Your task to perform on an android device: change keyboard looks Image 0: 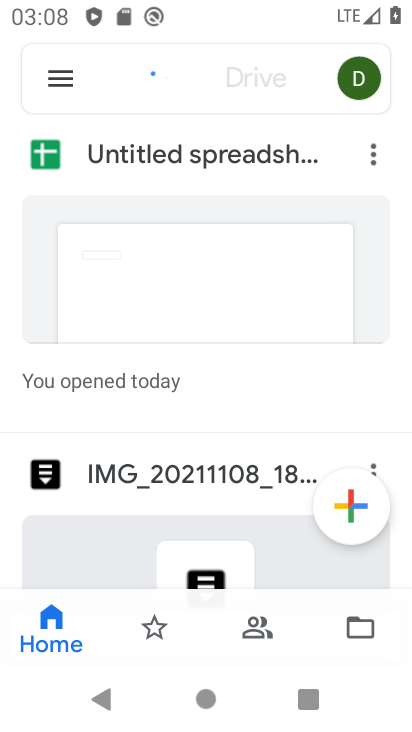
Step 0: press home button
Your task to perform on an android device: change keyboard looks Image 1: 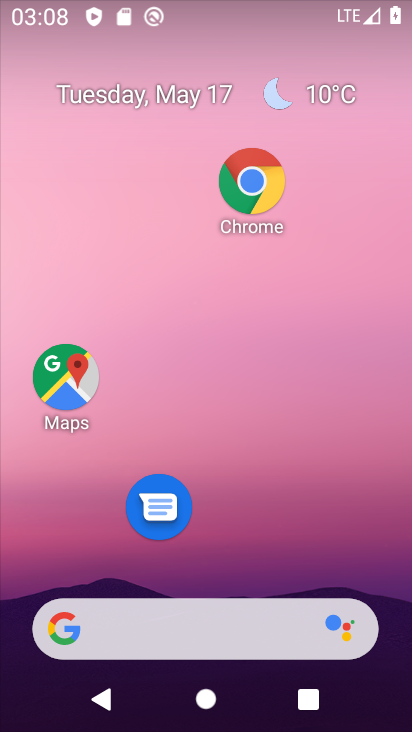
Step 1: drag from (232, 537) to (191, 41)
Your task to perform on an android device: change keyboard looks Image 2: 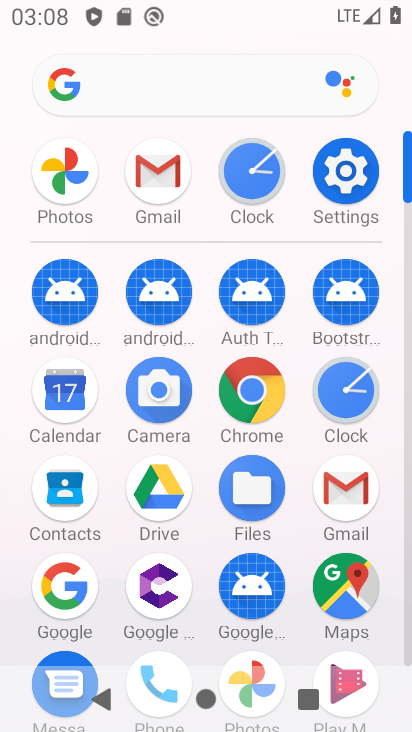
Step 2: click (364, 166)
Your task to perform on an android device: change keyboard looks Image 3: 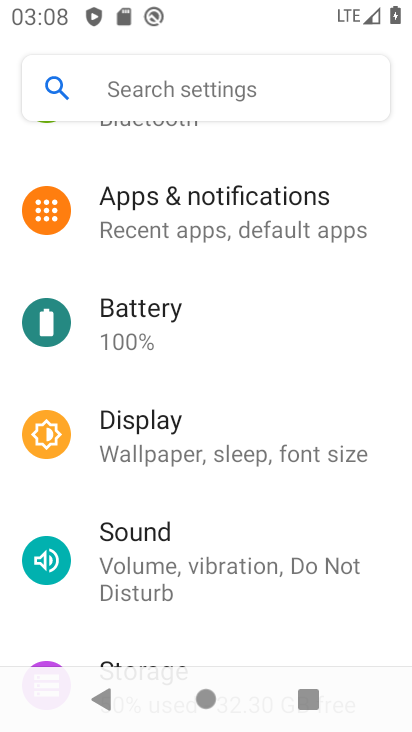
Step 3: drag from (72, 636) to (114, 288)
Your task to perform on an android device: change keyboard looks Image 4: 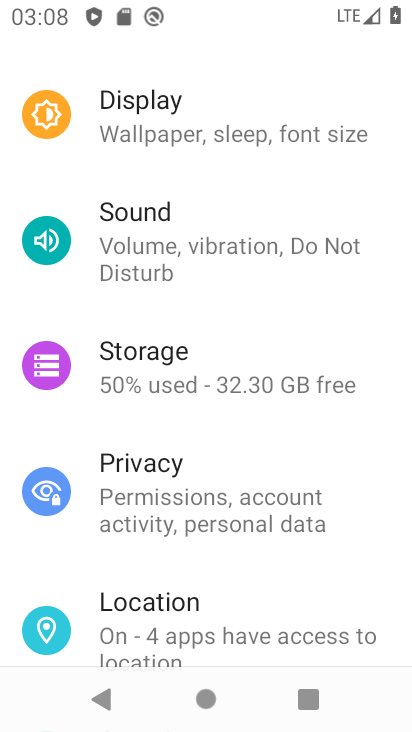
Step 4: drag from (126, 565) to (216, 137)
Your task to perform on an android device: change keyboard looks Image 5: 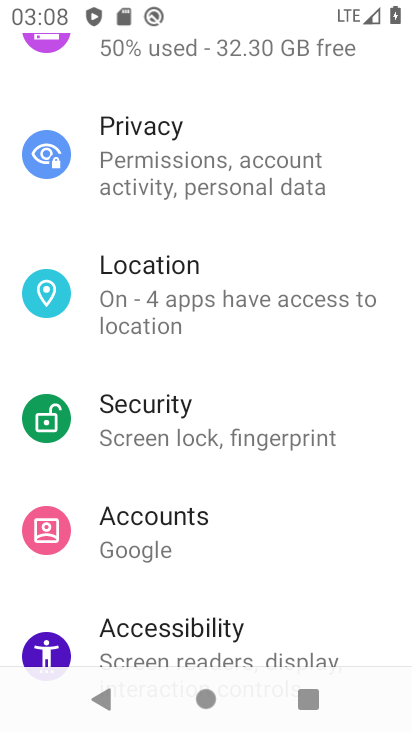
Step 5: drag from (113, 575) to (196, 154)
Your task to perform on an android device: change keyboard looks Image 6: 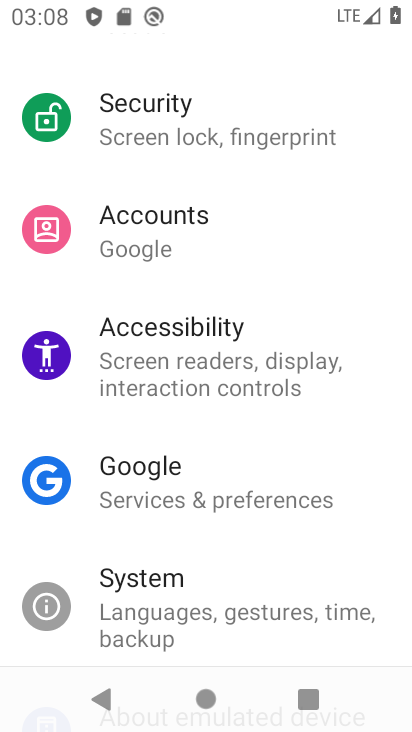
Step 6: click (207, 631)
Your task to perform on an android device: change keyboard looks Image 7: 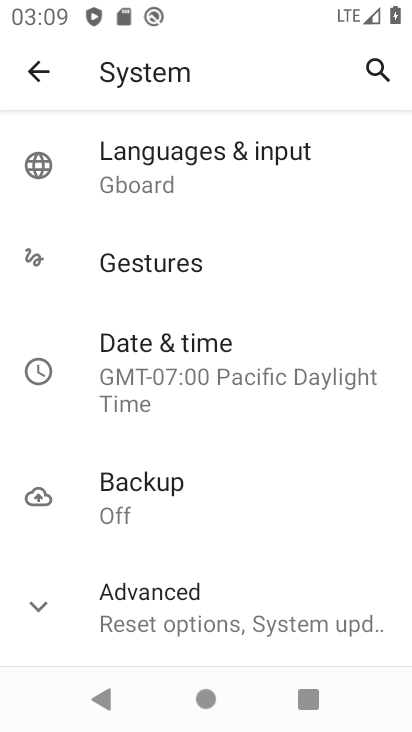
Step 7: drag from (207, 631) to (230, 196)
Your task to perform on an android device: change keyboard looks Image 8: 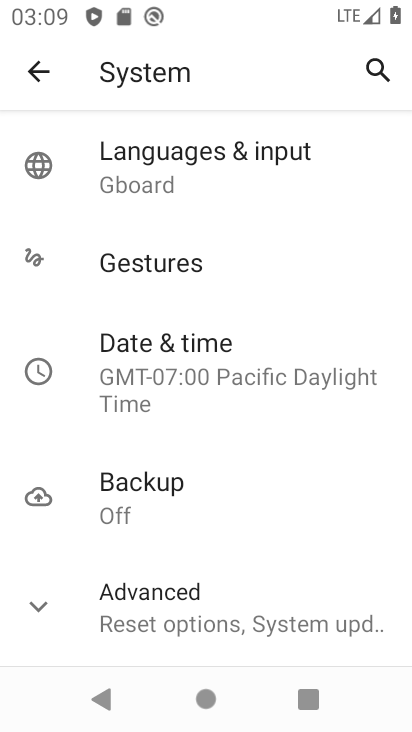
Step 8: click (214, 605)
Your task to perform on an android device: change keyboard looks Image 9: 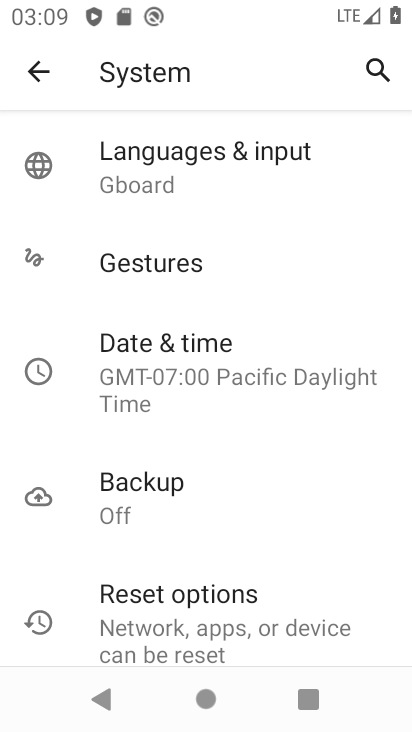
Step 9: drag from (214, 605) to (205, 156)
Your task to perform on an android device: change keyboard looks Image 10: 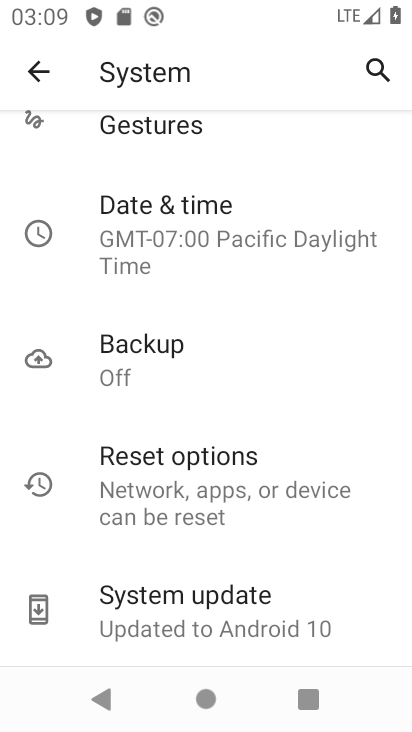
Step 10: drag from (217, 203) to (205, 592)
Your task to perform on an android device: change keyboard looks Image 11: 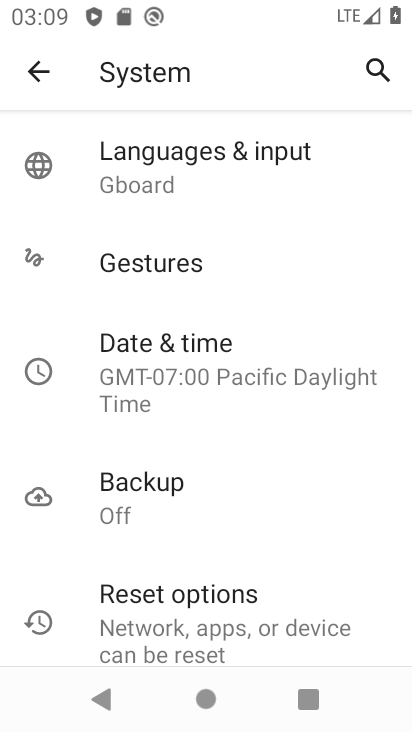
Step 11: click (101, 179)
Your task to perform on an android device: change keyboard looks Image 12: 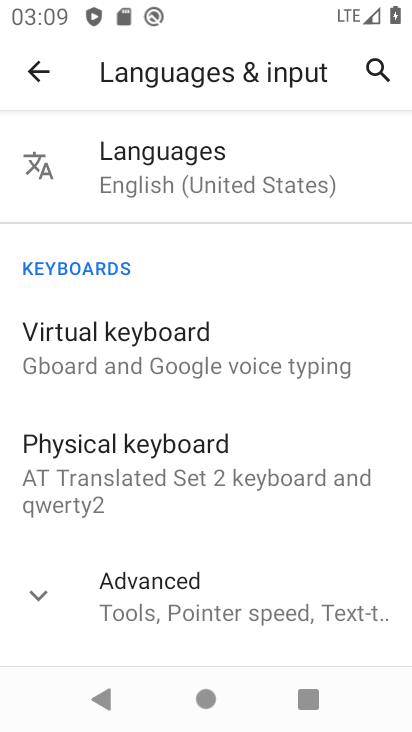
Step 12: click (236, 377)
Your task to perform on an android device: change keyboard looks Image 13: 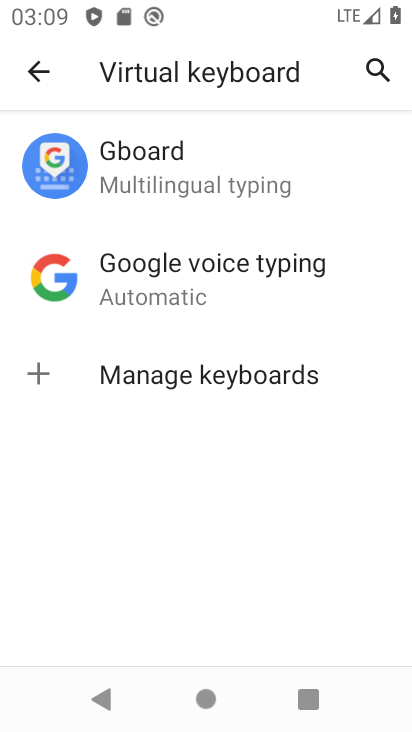
Step 13: click (177, 185)
Your task to perform on an android device: change keyboard looks Image 14: 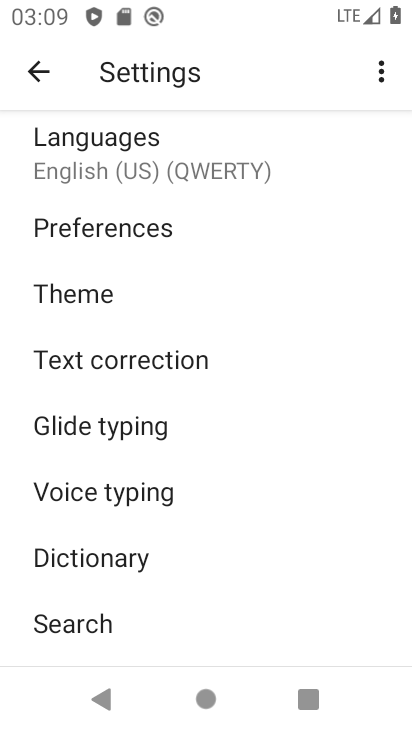
Step 14: click (167, 163)
Your task to perform on an android device: change keyboard looks Image 15: 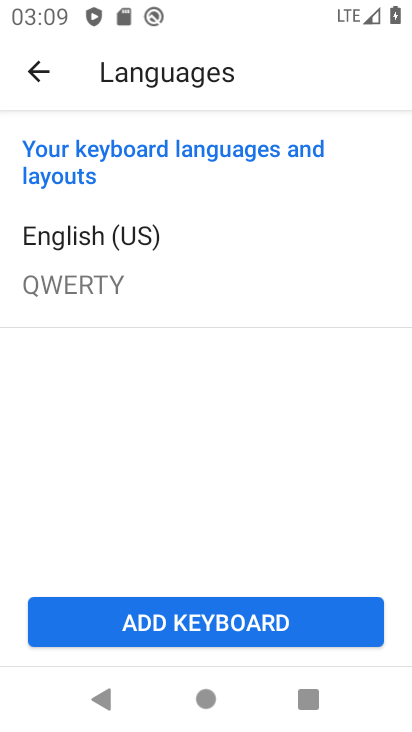
Step 15: click (39, 77)
Your task to perform on an android device: change keyboard looks Image 16: 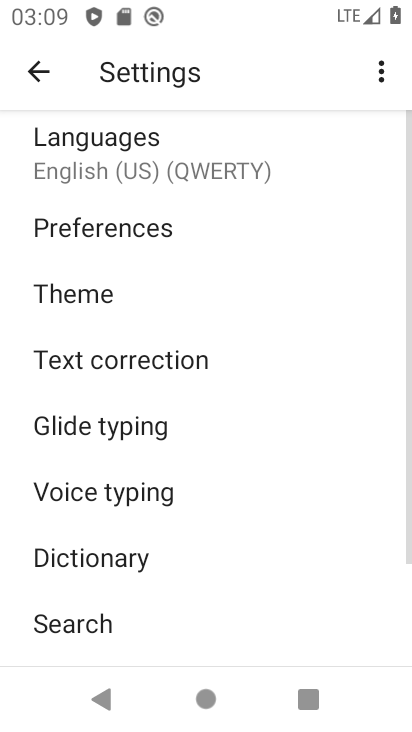
Step 16: click (107, 304)
Your task to perform on an android device: change keyboard looks Image 17: 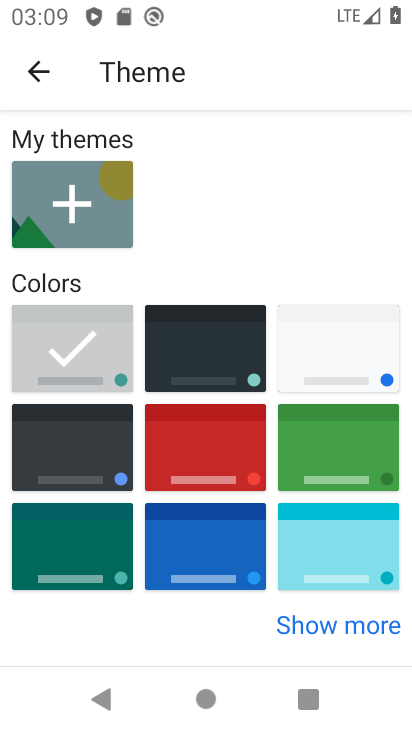
Step 17: click (327, 512)
Your task to perform on an android device: change keyboard looks Image 18: 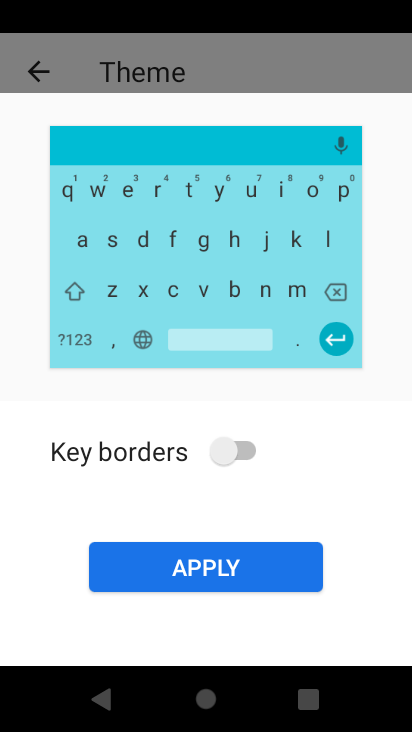
Step 18: click (239, 460)
Your task to perform on an android device: change keyboard looks Image 19: 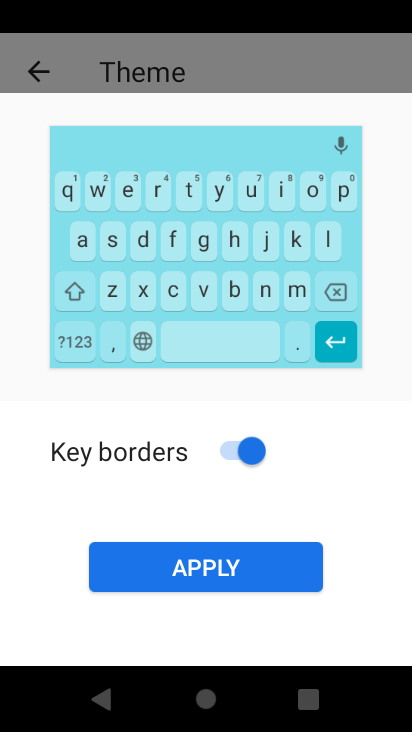
Step 19: click (213, 568)
Your task to perform on an android device: change keyboard looks Image 20: 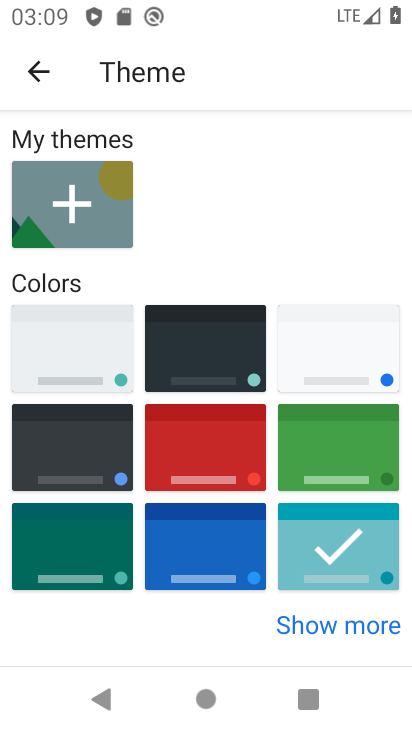
Step 20: task complete